Your task to perform on an android device: open app "The Home Depot" (install if not already installed) Image 0: 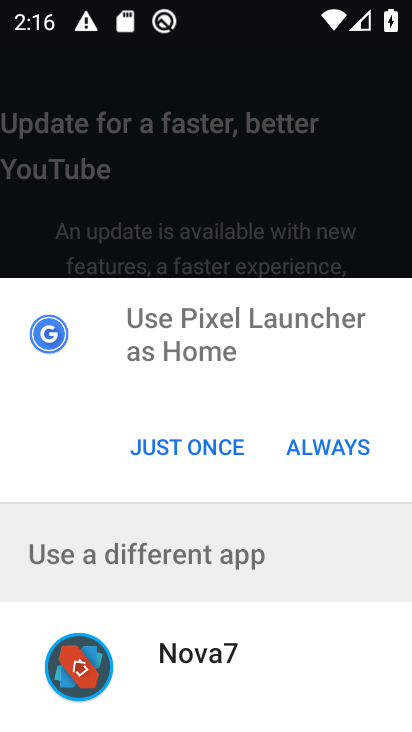
Step 0: click (165, 456)
Your task to perform on an android device: open app "The Home Depot" (install if not already installed) Image 1: 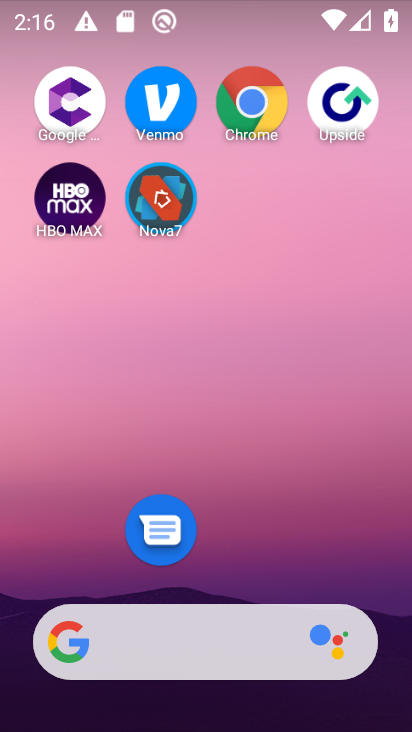
Step 1: drag from (285, 583) to (326, 71)
Your task to perform on an android device: open app "The Home Depot" (install if not already installed) Image 2: 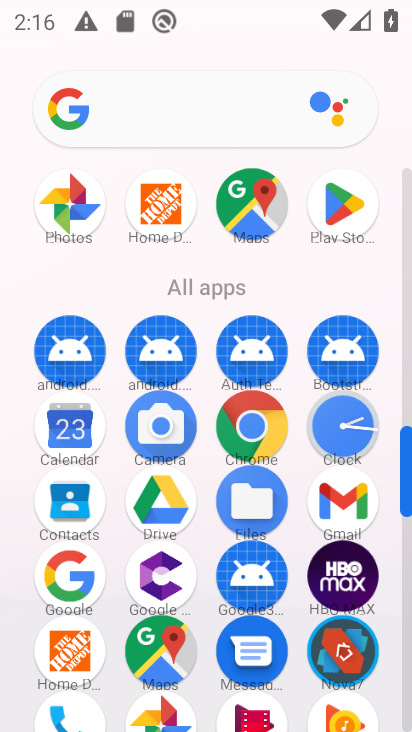
Step 2: click (352, 205)
Your task to perform on an android device: open app "The Home Depot" (install if not already installed) Image 3: 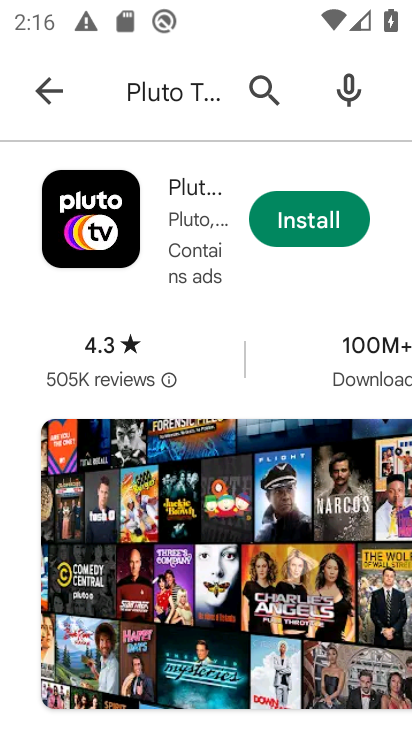
Step 3: press back button
Your task to perform on an android device: open app "The Home Depot" (install if not already installed) Image 4: 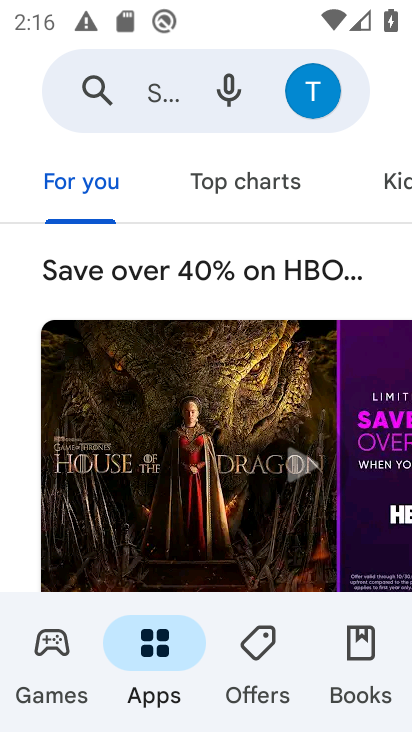
Step 4: click (159, 101)
Your task to perform on an android device: open app "The Home Depot" (install if not already installed) Image 5: 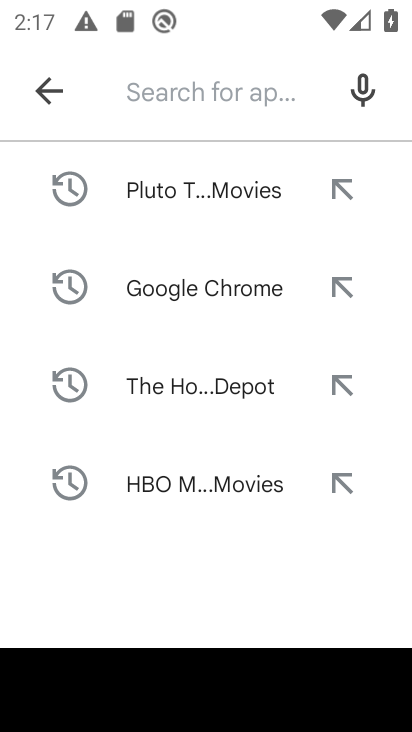
Step 5: type "The Home Depot"
Your task to perform on an android device: open app "The Home Depot" (install if not already installed) Image 6: 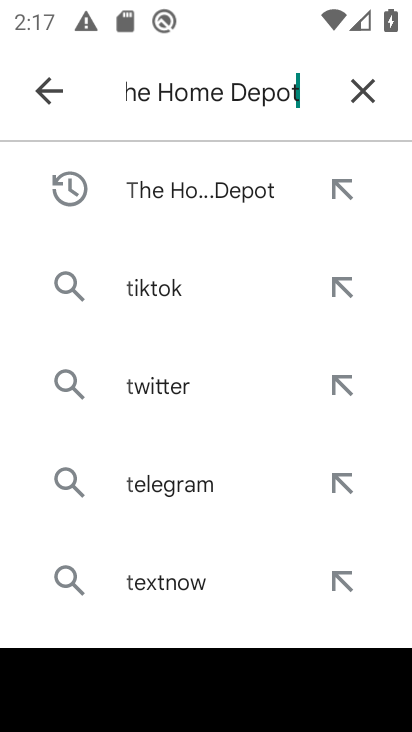
Step 6: press enter
Your task to perform on an android device: open app "The Home Depot" (install if not already installed) Image 7: 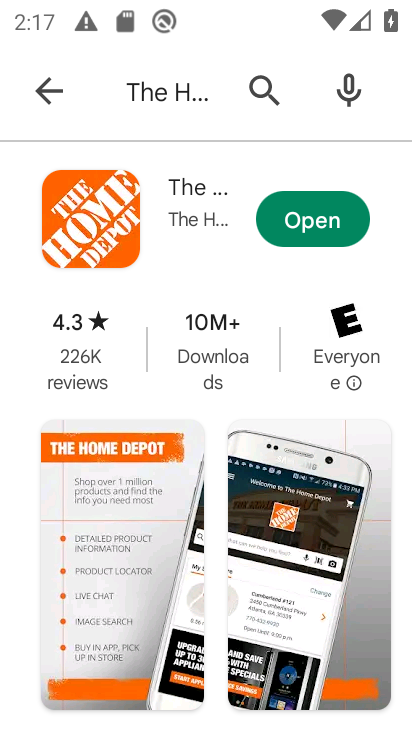
Step 7: click (311, 216)
Your task to perform on an android device: open app "The Home Depot" (install if not already installed) Image 8: 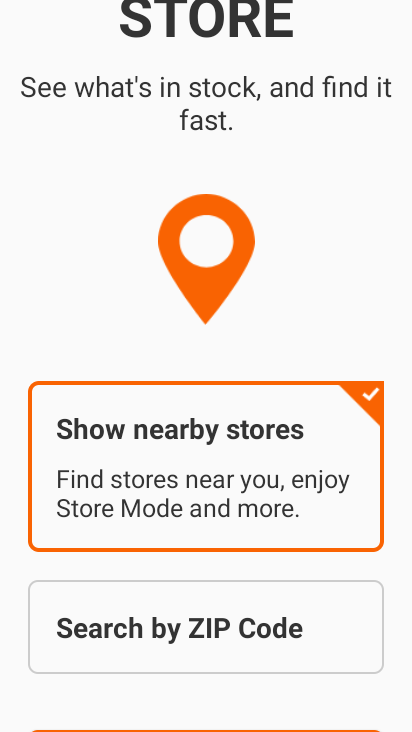
Step 8: task complete